Your task to perform on an android device: Open calendar and show me the third week of next month Image 0: 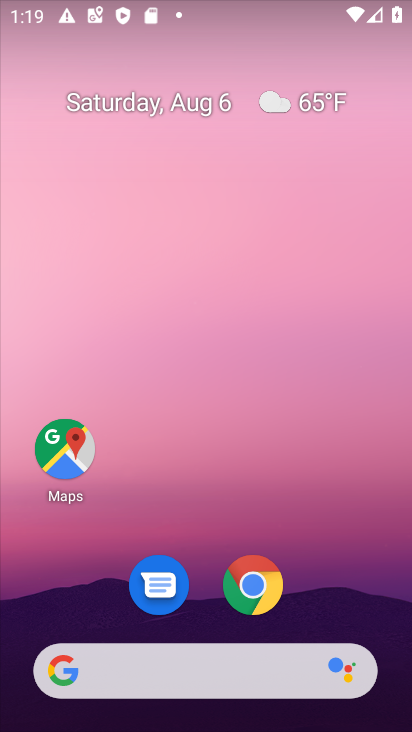
Step 0: drag from (228, 501) to (284, 0)
Your task to perform on an android device: Open calendar and show me the third week of next month Image 1: 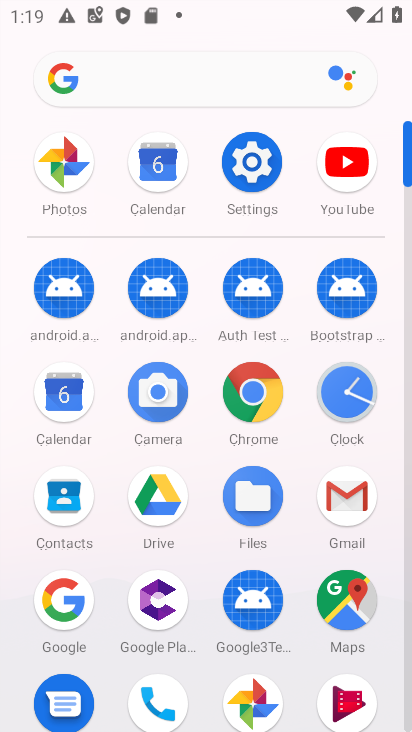
Step 1: click (162, 174)
Your task to perform on an android device: Open calendar and show me the third week of next month Image 2: 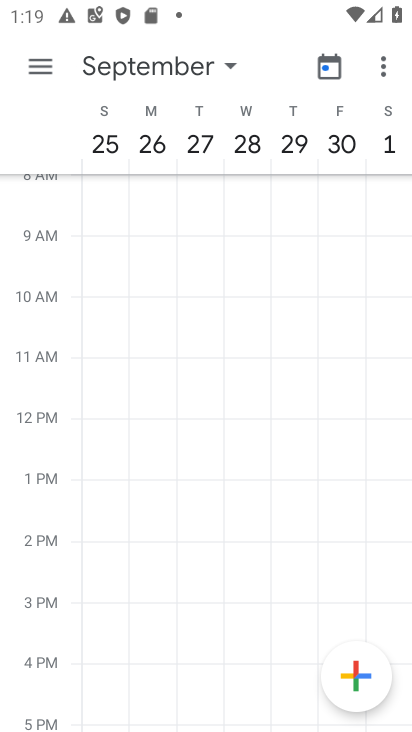
Step 2: task complete